Your task to perform on an android device: search for starred emails in the gmail app Image 0: 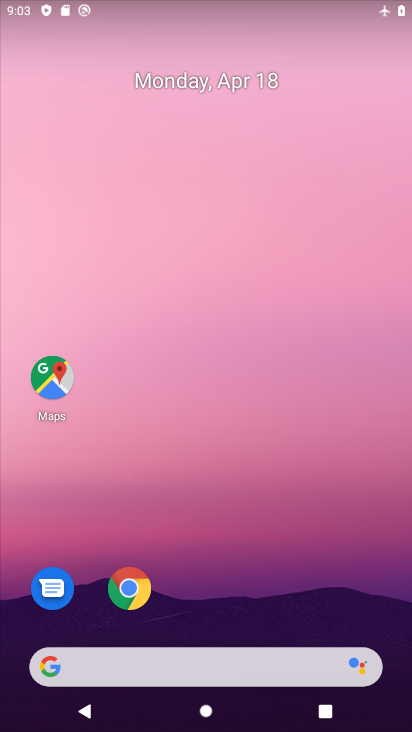
Step 0: drag from (254, 570) to (259, 172)
Your task to perform on an android device: search for starred emails in the gmail app Image 1: 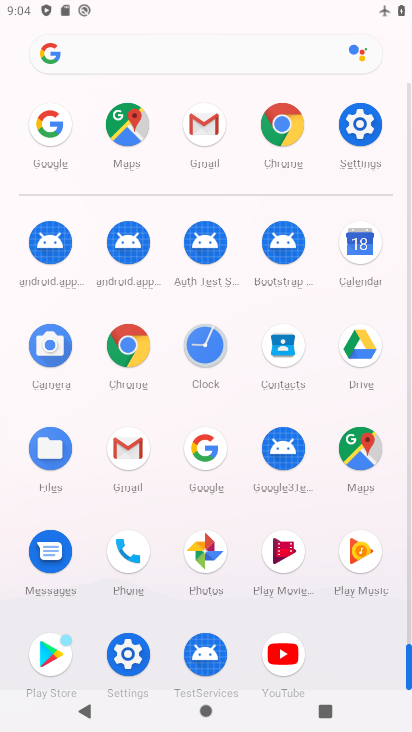
Step 1: click (202, 124)
Your task to perform on an android device: search for starred emails in the gmail app Image 2: 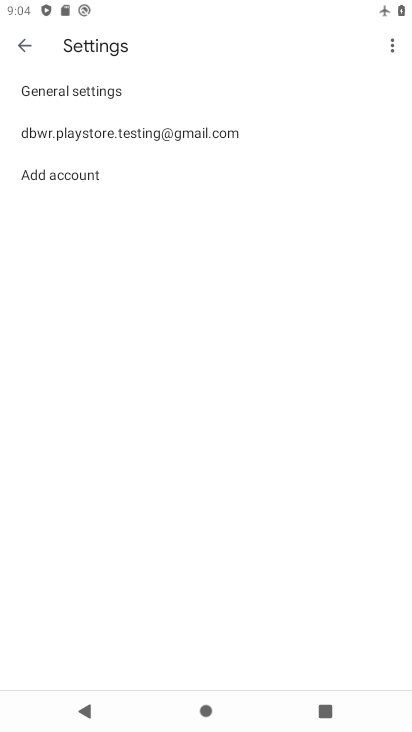
Step 2: click (180, 119)
Your task to perform on an android device: search for starred emails in the gmail app Image 3: 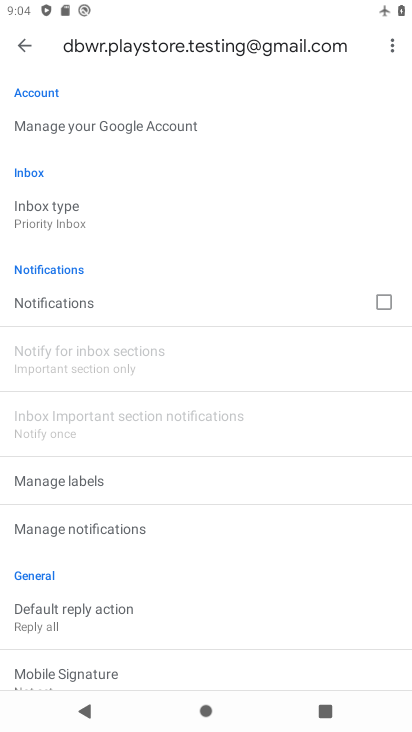
Step 3: press back button
Your task to perform on an android device: search for starred emails in the gmail app Image 4: 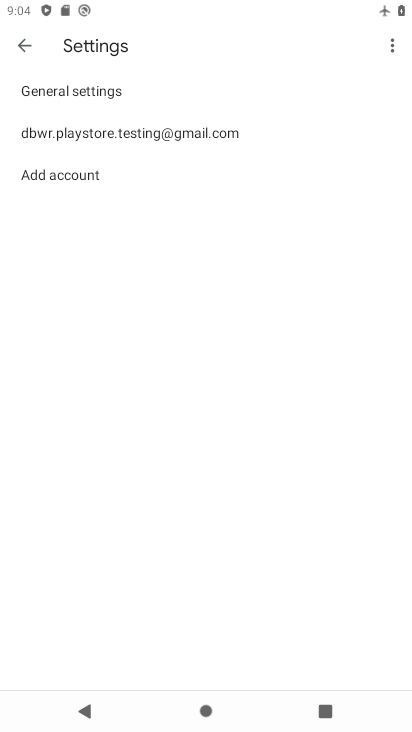
Step 4: press back button
Your task to perform on an android device: search for starred emails in the gmail app Image 5: 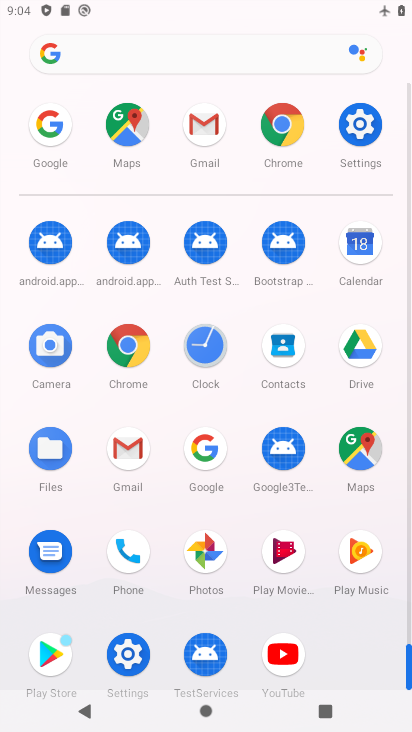
Step 5: click (117, 454)
Your task to perform on an android device: search for starred emails in the gmail app Image 6: 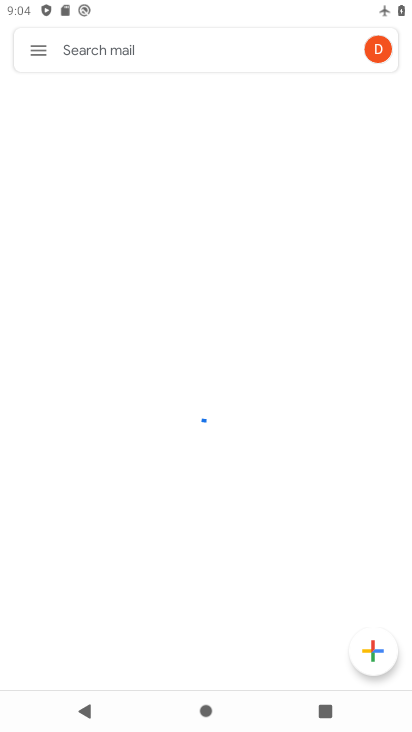
Step 6: click (42, 41)
Your task to perform on an android device: search for starred emails in the gmail app Image 7: 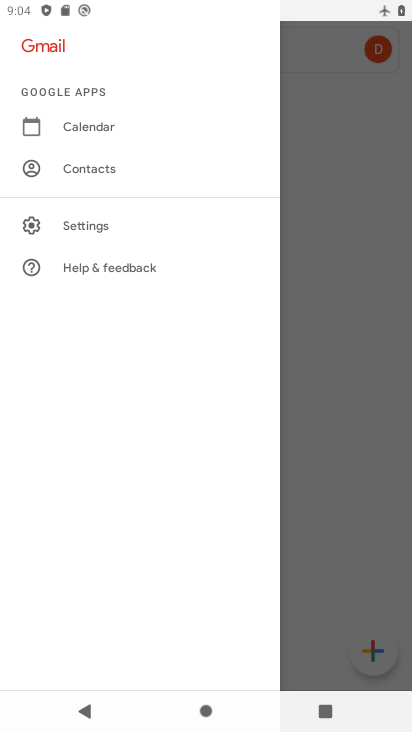
Step 7: click (332, 166)
Your task to perform on an android device: search for starred emails in the gmail app Image 8: 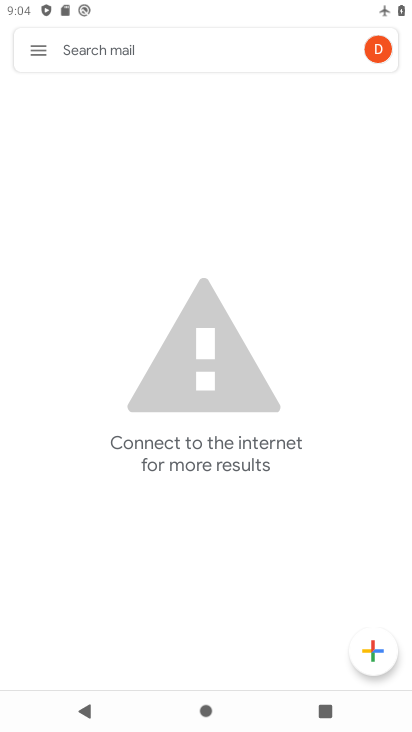
Step 8: click (45, 48)
Your task to perform on an android device: search for starred emails in the gmail app Image 9: 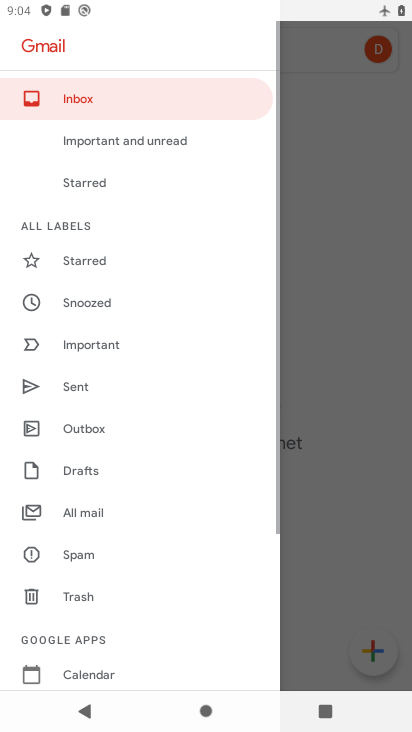
Step 9: click (118, 180)
Your task to perform on an android device: search for starred emails in the gmail app Image 10: 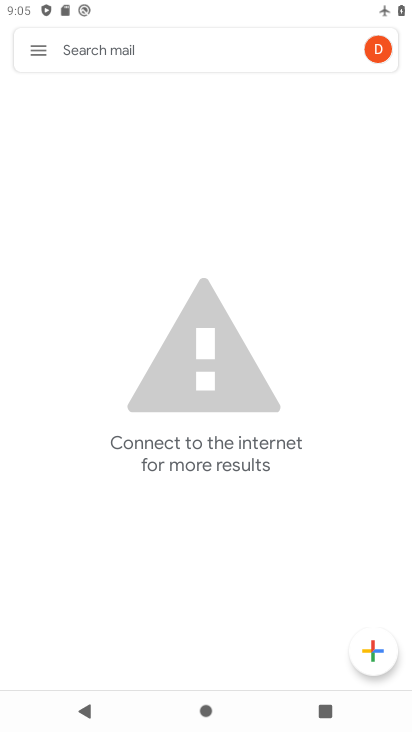
Step 10: task complete